Your task to perform on an android device: turn pop-ups on in chrome Image 0: 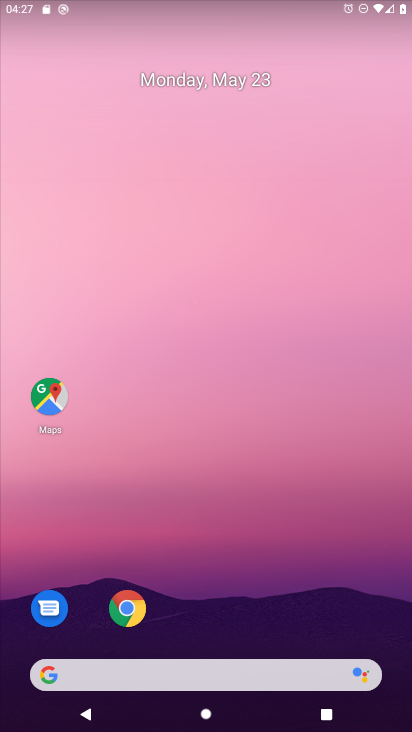
Step 0: click (127, 605)
Your task to perform on an android device: turn pop-ups on in chrome Image 1: 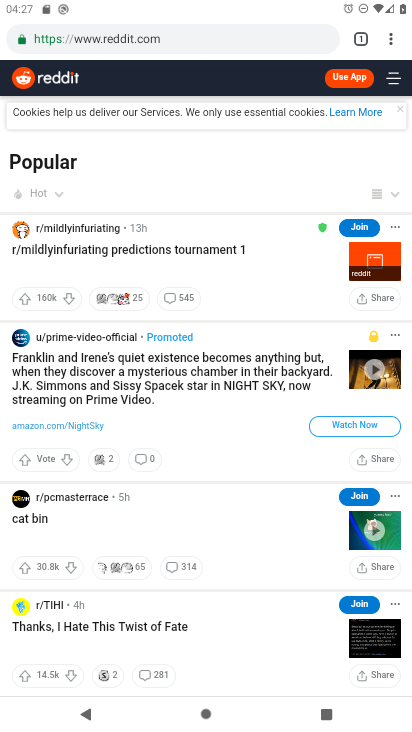
Step 1: click (392, 36)
Your task to perform on an android device: turn pop-ups on in chrome Image 2: 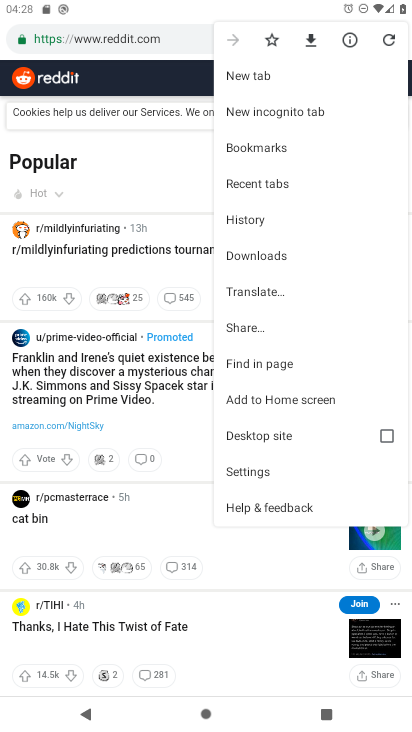
Step 2: click (257, 472)
Your task to perform on an android device: turn pop-ups on in chrome Image 3: 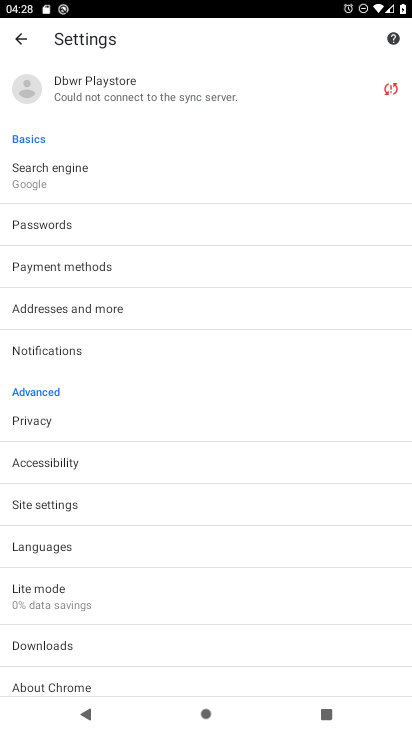
Step 3: click (65, 506)
Your task to perform on an android device: turn pop-ups on in chrome Image 4: 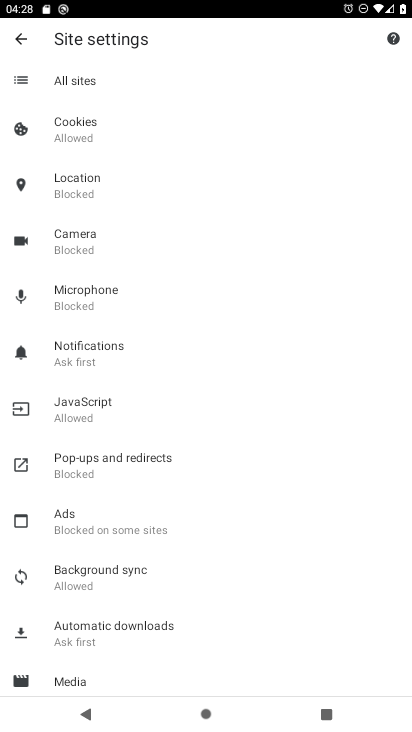
Step 4: click (125, 457)
Your task to perform on an android device: turn pop-ups on in chrome Image 5: 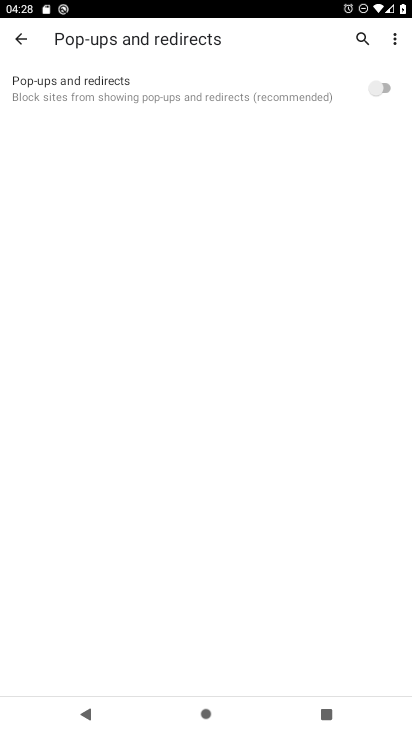
Step 5: click (376, 87)
Your task to perform on an android device: turn pop-ups on in chrome Image 6: 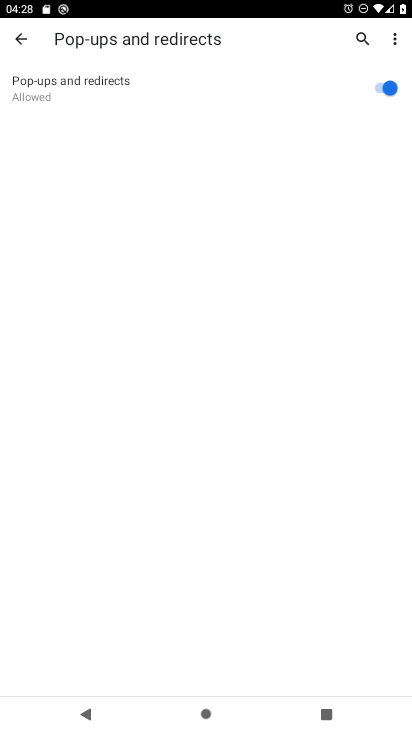
Step 6: task complete